Your task to perform on an android device: Do I have any events today? Image 0: 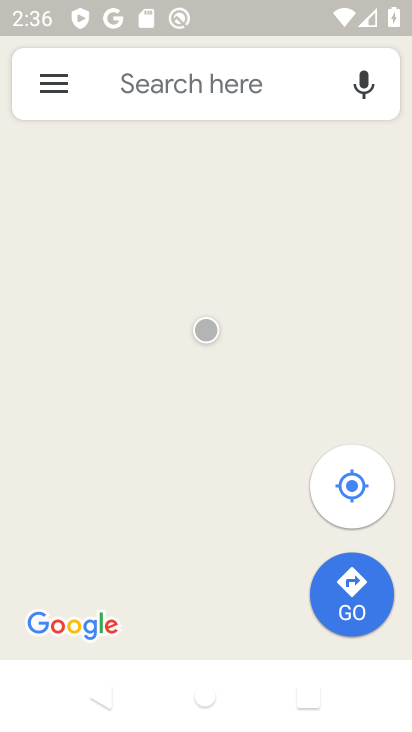
Step 0: press back button
Your task to perform on an android device: Do I have any events today? Image 1: 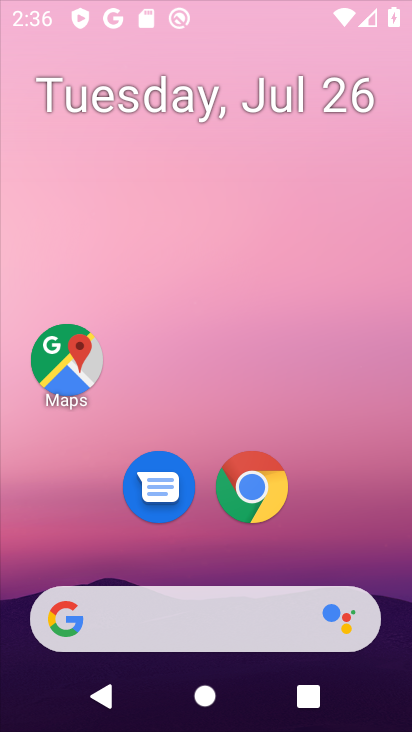
Step 1: drag from (117, 502) to (233, 7)
Your task to perform on an android device: Do I have any events today? Image 2: 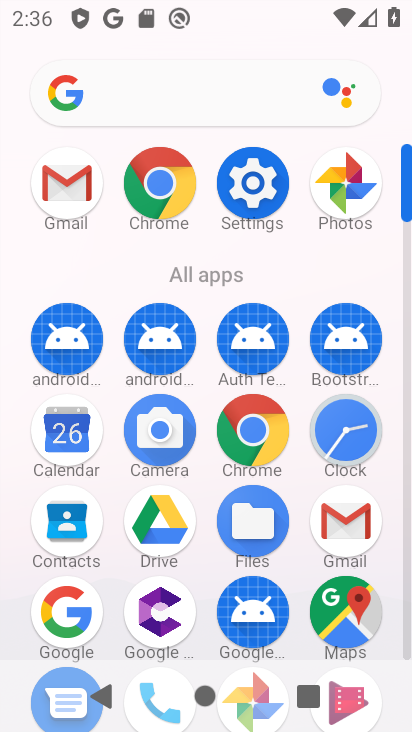
Step 2: click (56, 442)
Your task to perform on an android device: Do I have any events today? Image 3: 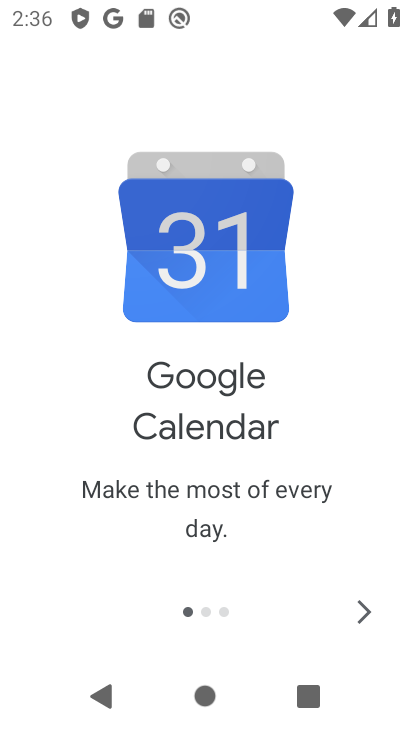
Step 3: click (360, 618)
Your task to perform on an android device: Do I have any events today? Image 4: 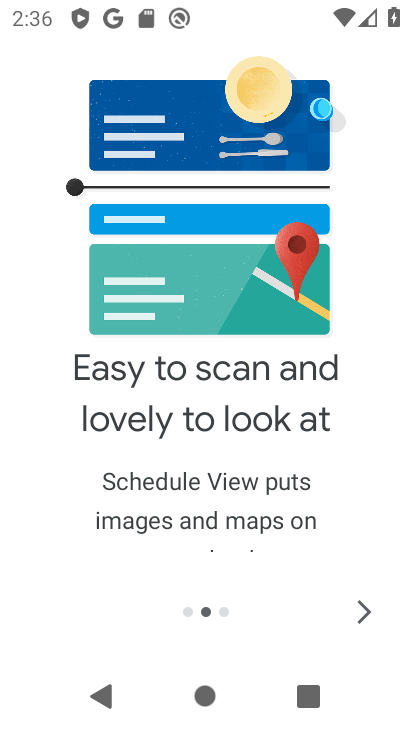
Step 4: click (358, 622)
Your task to perform on an android device: Do I have any events today? Image 5: 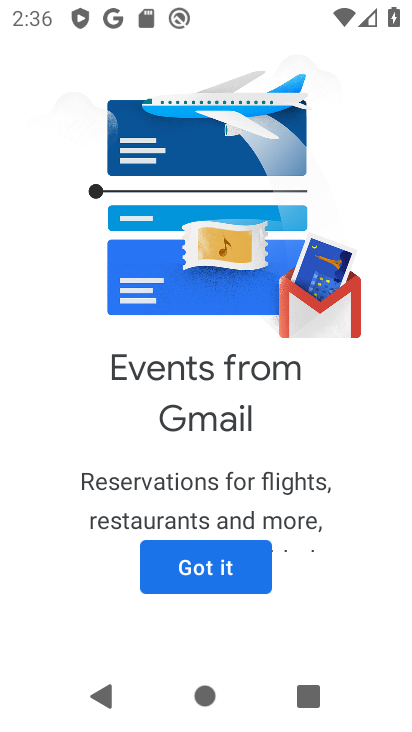
Step 5: click (228, 558)
Your task to perform on an android device: Do I have any events today? Image 6: 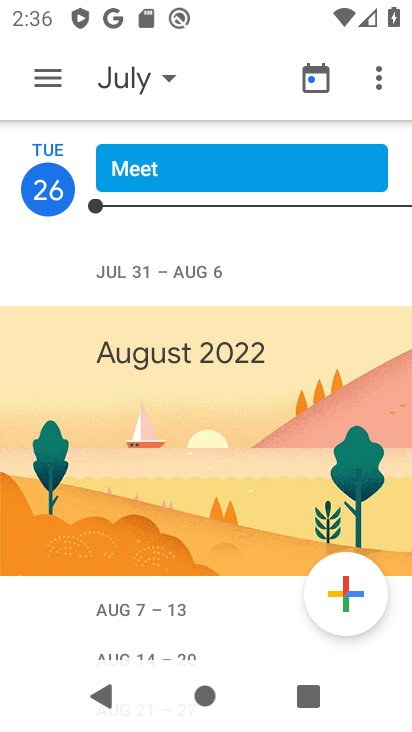
Step 6: task complete